Your task to perform on an android device: turn on the 24-hour format for clock Image 0: 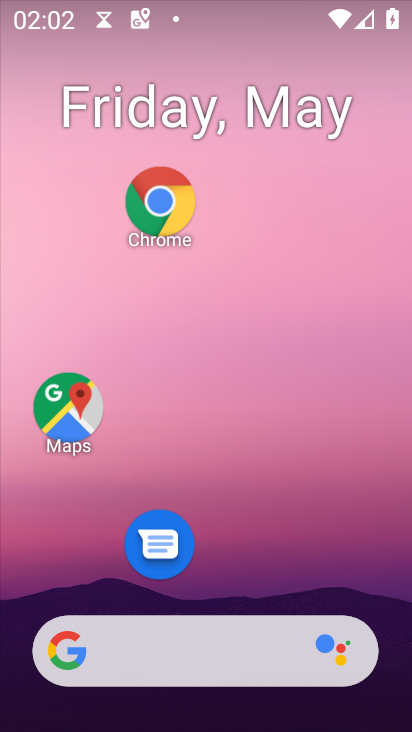
Step 0: drag from (277, 576) to (270, 261)
Your task to perform on an android device: turn on the 24-hour format for clock Image 1: 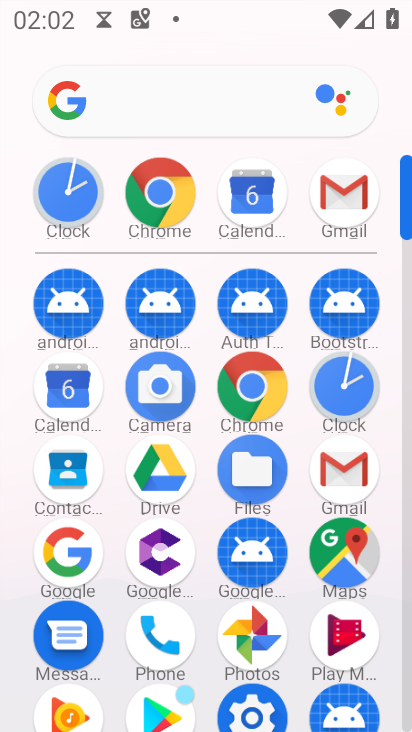
Step 1: click (337, 403)
Your task to perform on an android device: turn on the 24-hour format for clock Image 2: 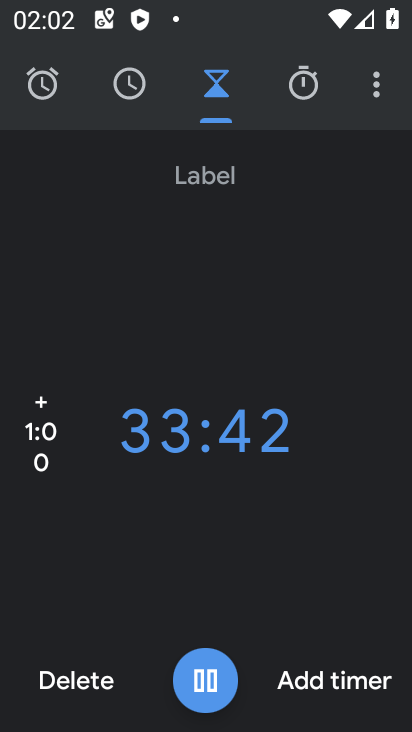
Step 2: click (387, 84)
Your task to perform on an android device: turn on the 24-hour format for clock Image 3: 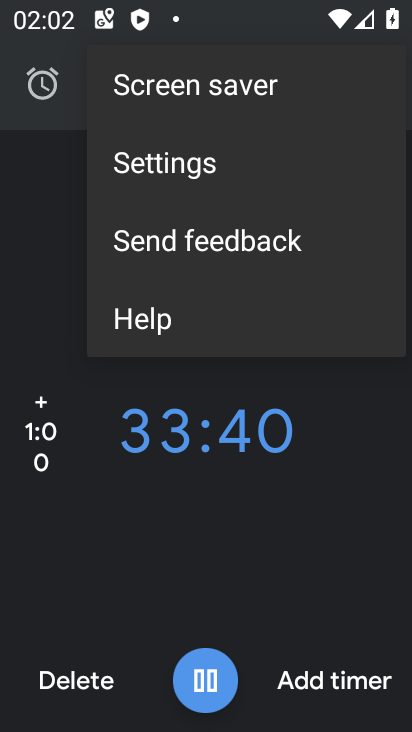
Step 3: click (191, 191)
Your task to perform on an android device: turn on the 24-hour format for clock Image 4: 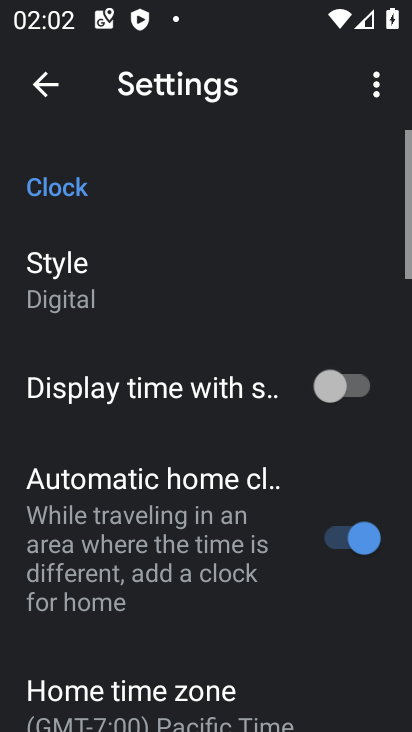
Step 4: drag from (266, 560) to (292, 150)
Your task to perform on an android device: turn on the 24-hour format for clock Image 5: 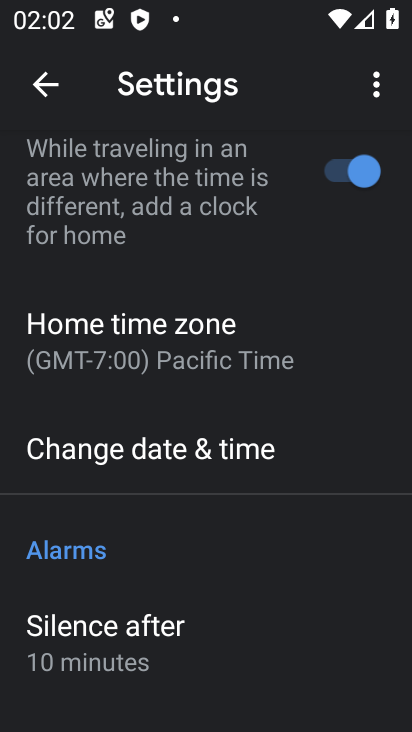
Step 5: drag from (261, 530) to (246, 314)
Your task to perform on an android device: turn on the 24-hour format for clock Image 6: 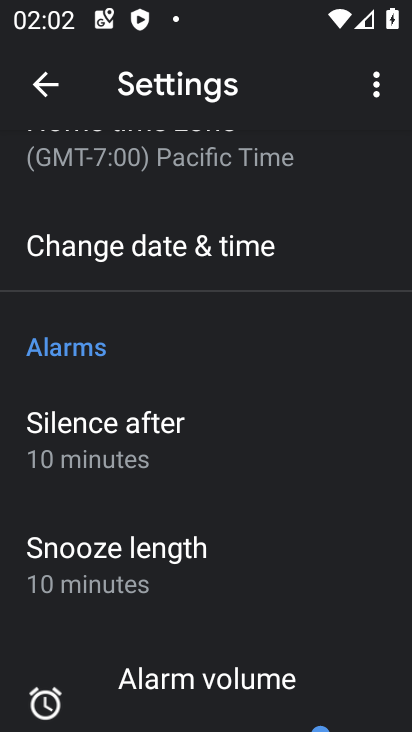
Step 6: click (237, 264)
Your task to perform on an android device: turn on the 24-hour format for clock Image 7: 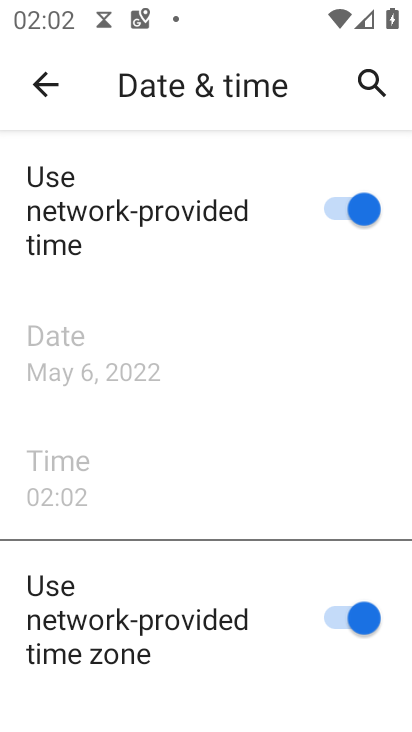
Step 7: task complete